Your task to perform on an android device: turn off translation in the chrome app Image 0: 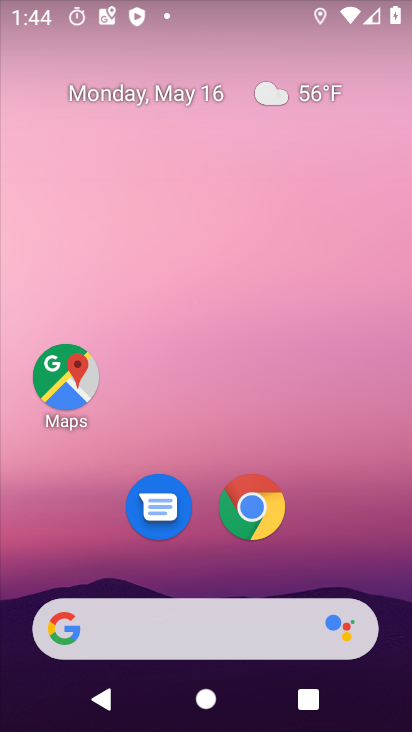
Step 0: click (261, 508)
Your task to perform on an android device: turn off translation in the chrome app Image 1: 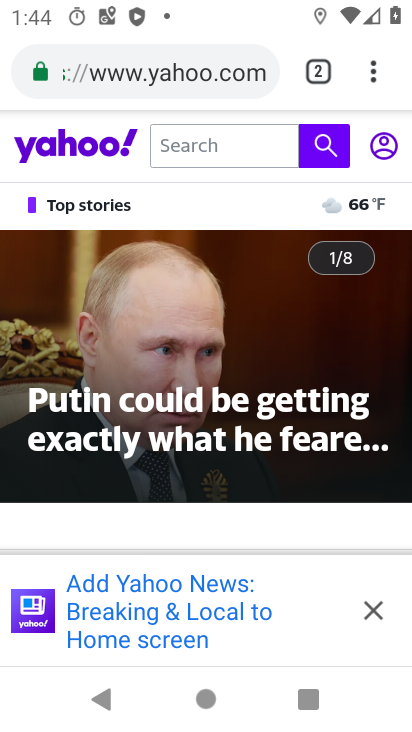
Step 1: click (365, 77)
Your task to perform on an android device: turn off translation in the chrome app Image 2: 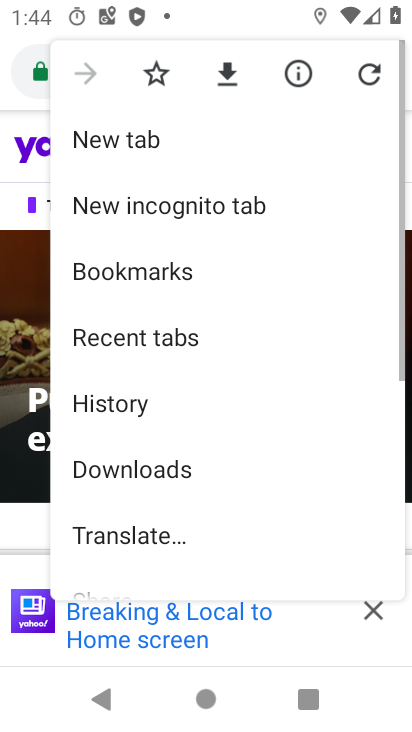
Step 2: drag from (149, 469) to (162, 147)
Your task to perform on an android device: turn off translation in the chrome app Image 3: 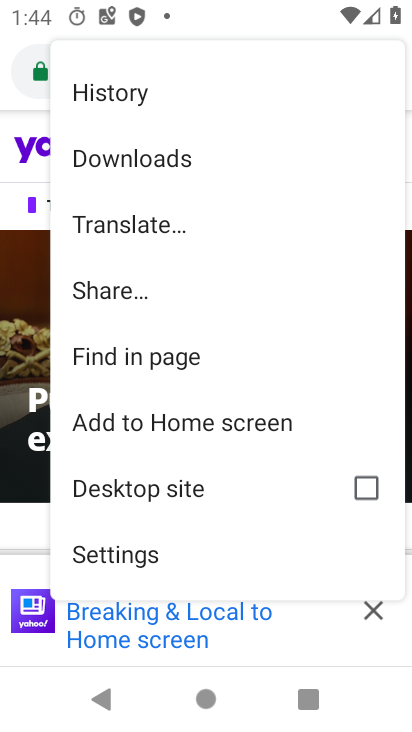
Step 3: click (145, 537)
Your task to perform on an android device: turn off translation in the chrome app Image 4: 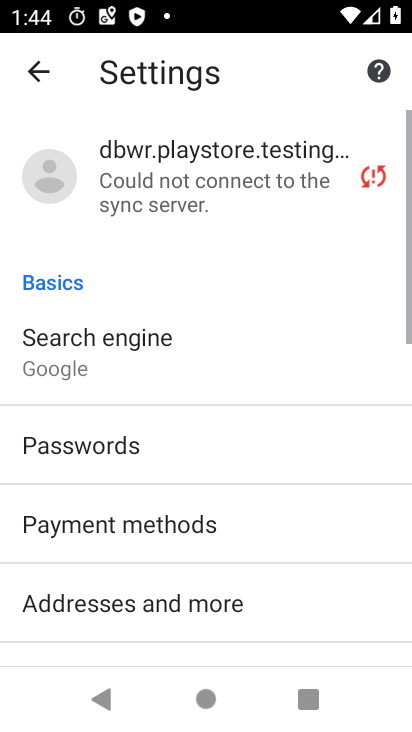
Step 4: drag from (219, 519) to (180, 88)
Your task to perform on an android device: turn off translation in the chrome app Image 5: 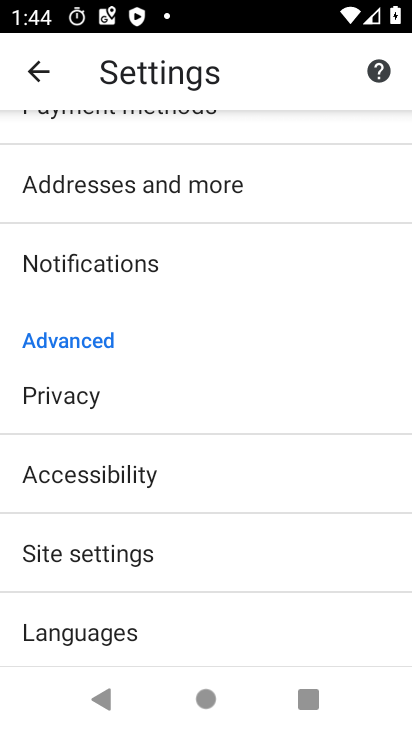
Step 5: click (112, 629)
Your task to perform on an android device: turn off translation in the chrome app Image 6: 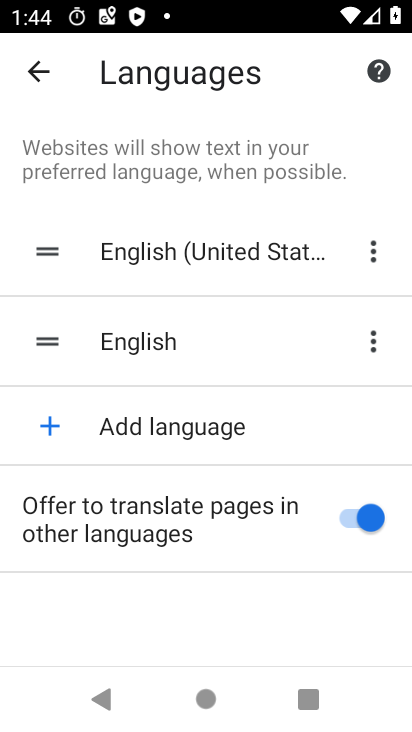
Step 6: click (357, 513)
Your task to perform on an android device: turn off translation in the chrome app Image 7: 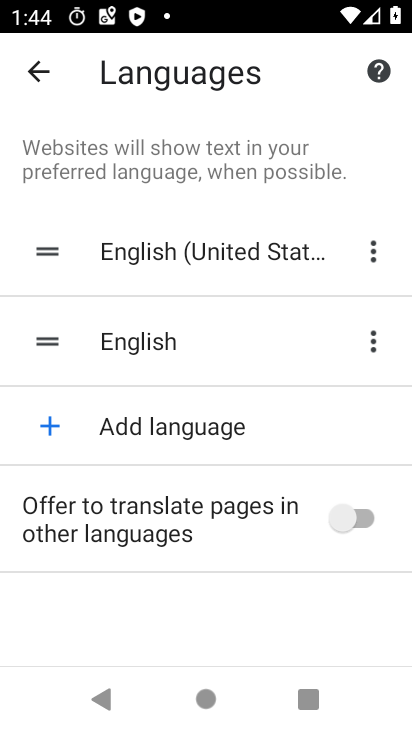
Step 7: task complete